Your task to perform on an android device: check battery use Image 0: 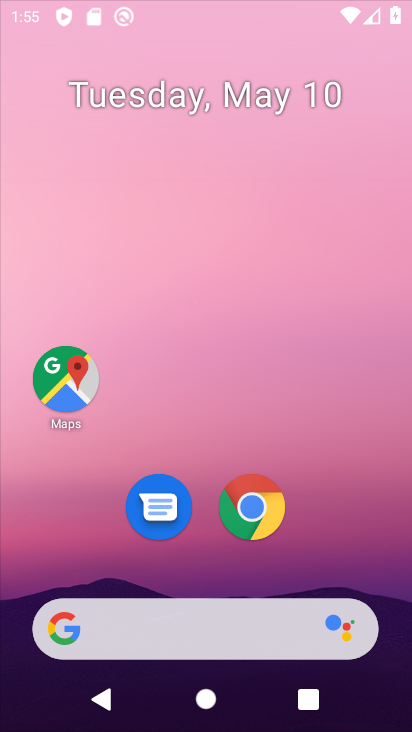
Step 0: drag from (304, 470) to (71, 15)
Your task to perform on an android device: check battery use Image 1: 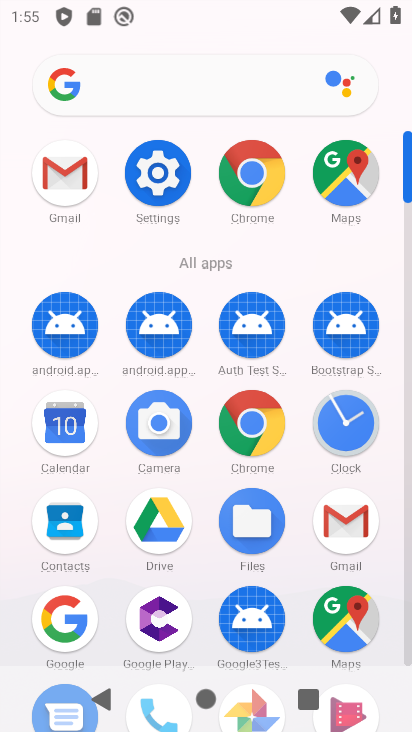
Step 1: click (157, 161)
Your task to perform on an android device: check battery use Image 2: 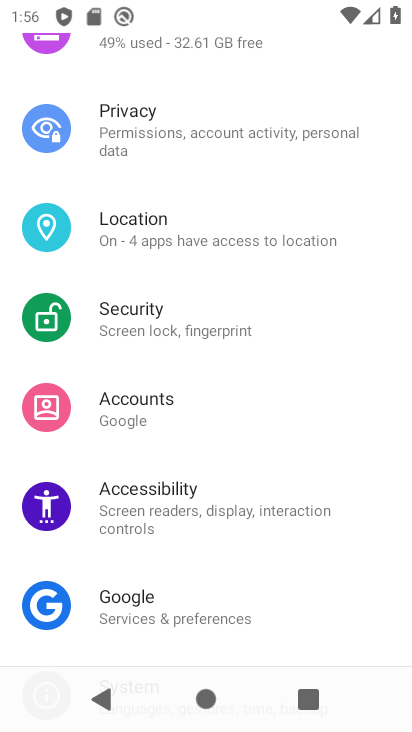
Step 2: drag from (134, 458) to (86, 61)
Your task to perform on an android device: check battery use Image 3: 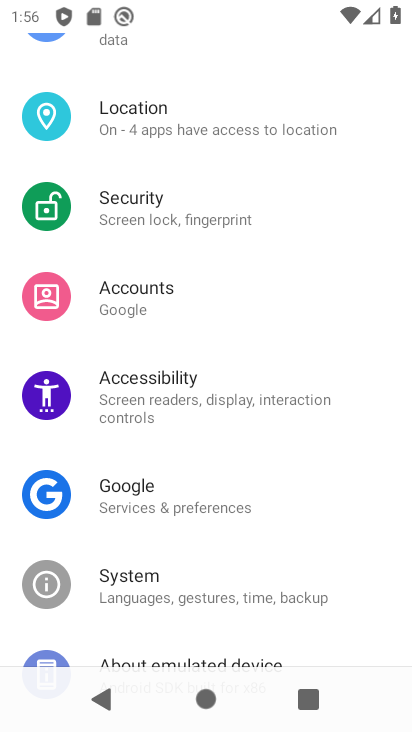
Step 3: drag from (167, 335) to (97, 22)
Your task to perform on an android device: check battery use Image 4: 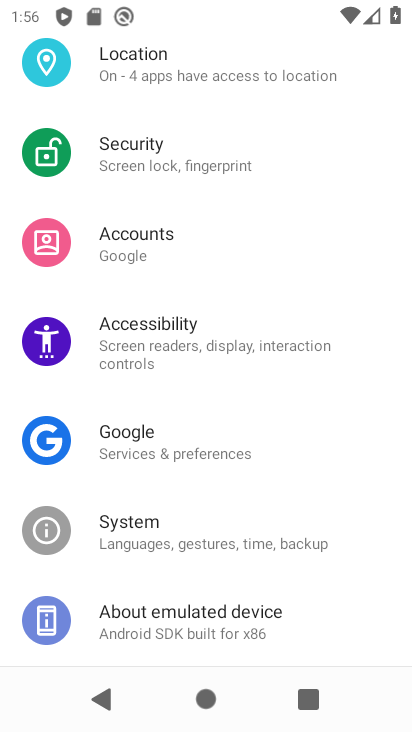
Step 4: drag from (147, 494) to (126, 242)
Your task to perform on an android device: check battery use Image 5: 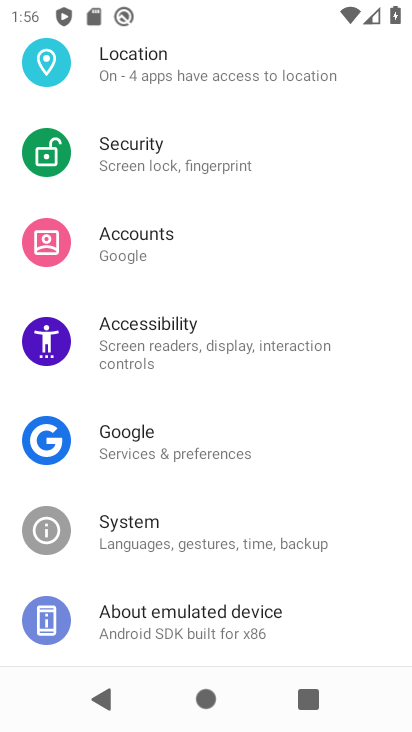
Step 5: drag from (145, 218) to (235, 571)
Your task to perform on an android device: check battery use Image 6: 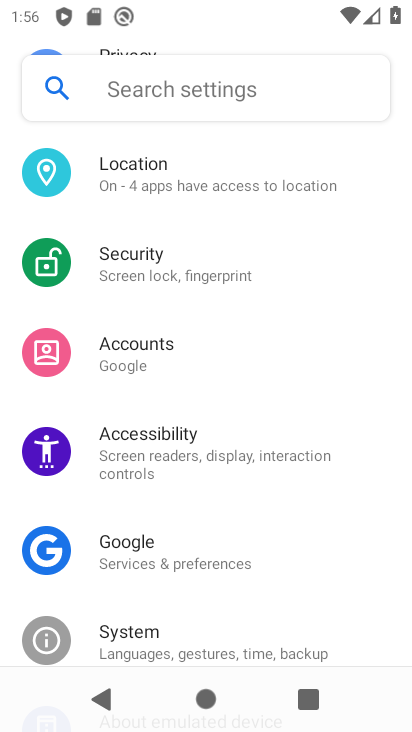
Step 6: drag from (139, 590) to (163, 700)
Your task to perform on an android device: check battery use Image 7: 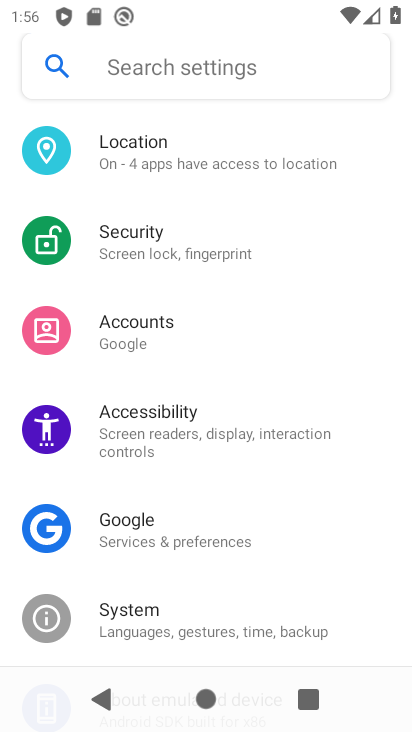
Step 7: drag from (175, 273) to (234, 489)
Your task to perform on an android device: check battery use Image 8: 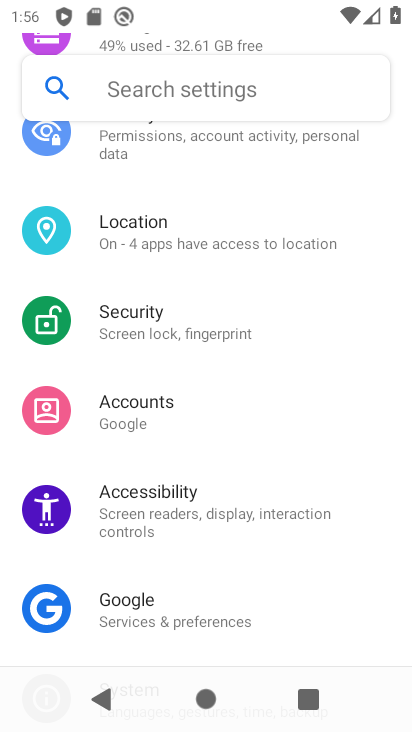
Step 8: drag from (205, 431) to (227, 516)
Your task to perform on an android device: check battery use Image 9: 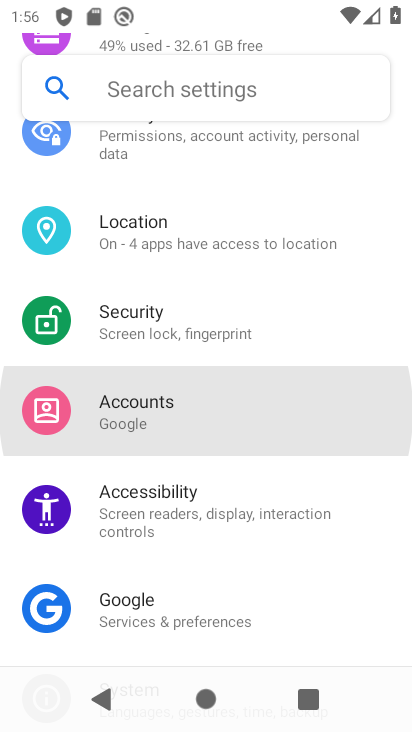
Step 9: drag from (170, 223) to (248, 431)
Your task to perform on an android device: check battery use Image 10: 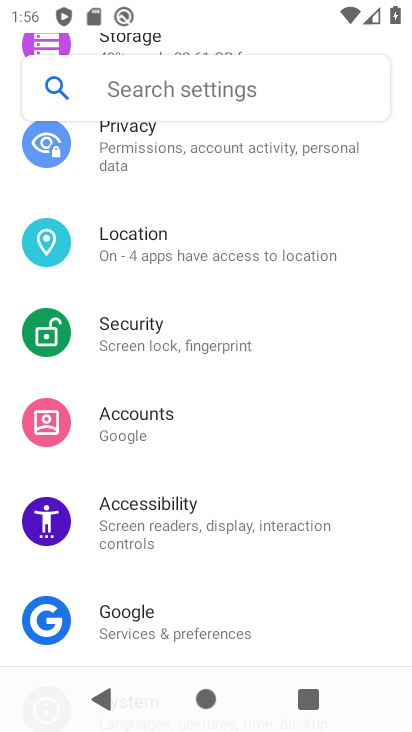
Step 10: drag from (199, 351) to (232, 544)
Your task to perform on an android device: check battery use Image 11: 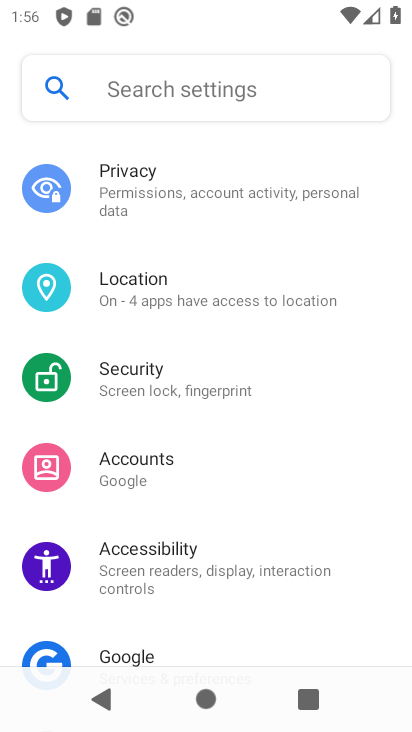
Step 11: drag from (173, 258) to (235, 489)
Your task to perform on an android device: check battery use Image 12: 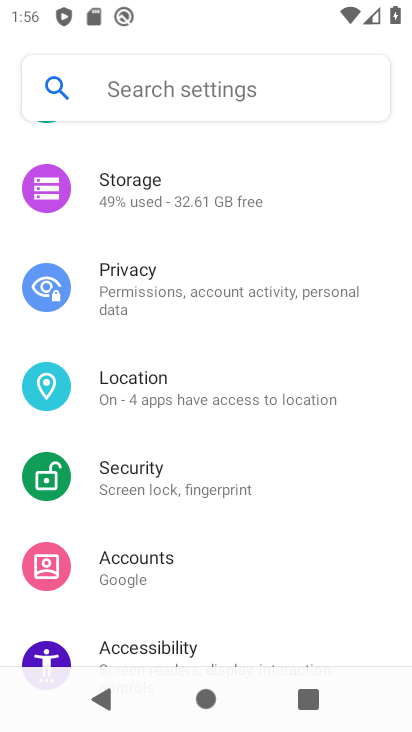
Step 12: drag from (180, 389) to (170, 524)
Your task to perform on an android device: check battery use Image 13: 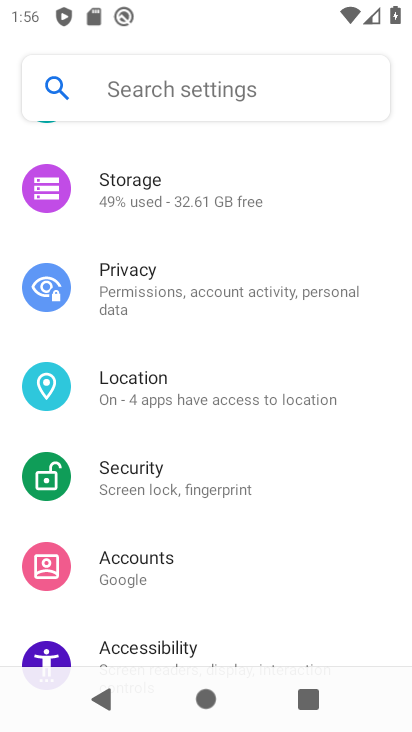
Step 13: drag from (165, 299) to (196, 462)
Your task to perform on an android device: check battery use Image 14: 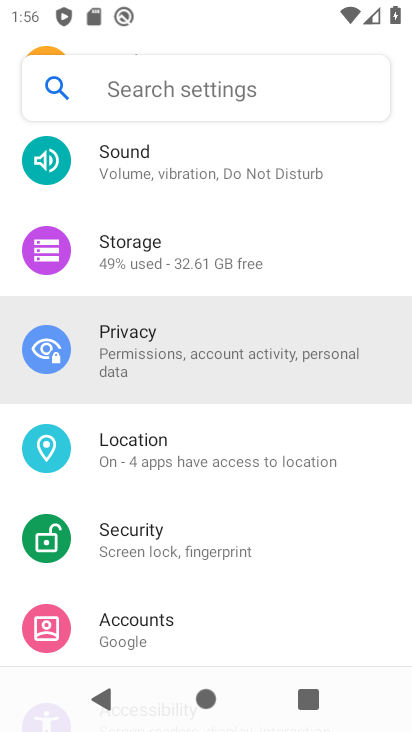
Step 14: drag from (174, 347) to (221, 534)
Your task to perform on an android device: check battery use Image 15: 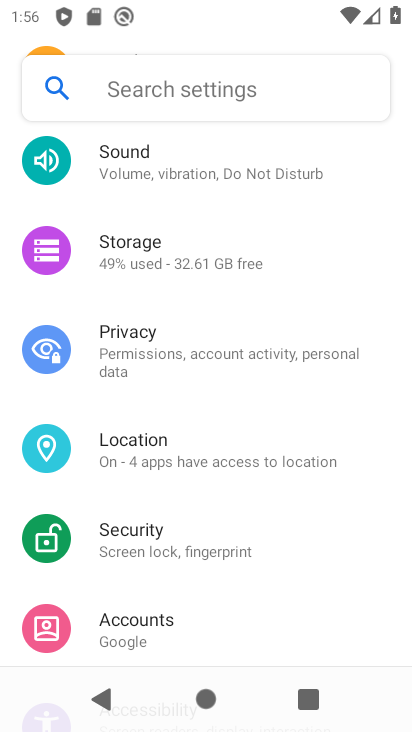
Step 15: drag from (207, 351) to (328, 556)
Your task to perform on an android device: check battery use Image 16: 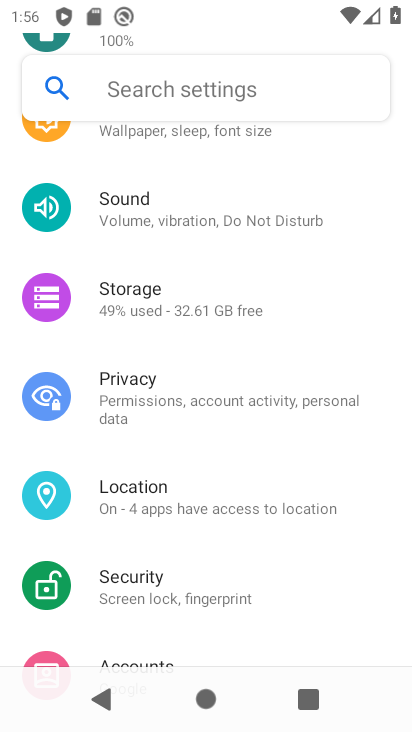
Step 16: drag from (100, 247) to (167, 433)
Your task to perform on an android device: check battery use Image 17: 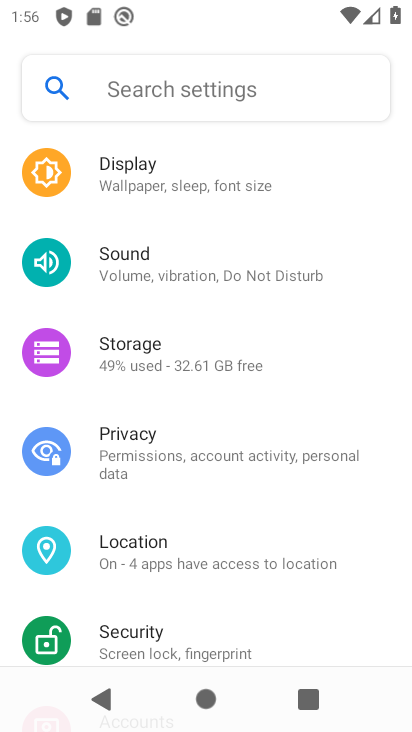
Step 17: drag from (144, 181) to (185, 508)
Your task to perform on an android device: check battery use Image 18: 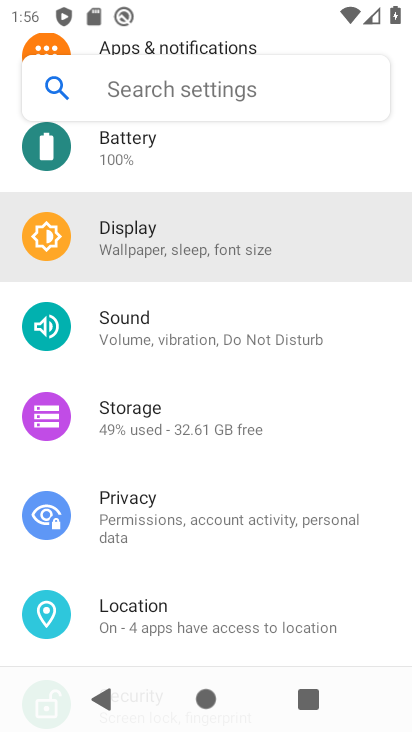
Step 18: drag from (121, 239) to (161, 507)
Your task to perform on an android device: check battery use Image 19: 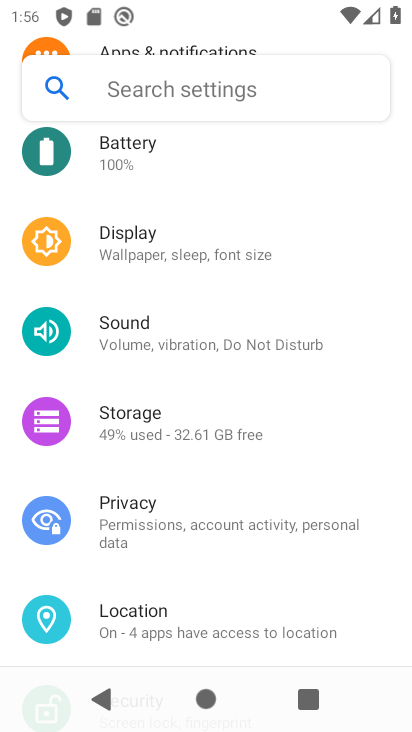
Step 19: click (140, 475)
Your task to perform on an android device: check battery use Image 20: 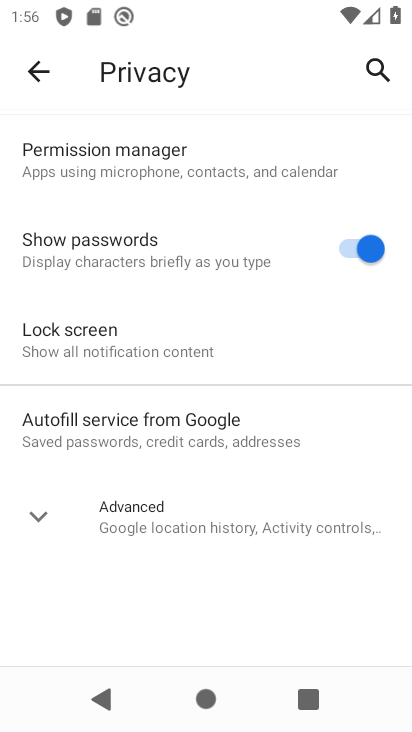
Step 20: click (29, 62)
Your task to perform on an android device: check battery use Image 21: 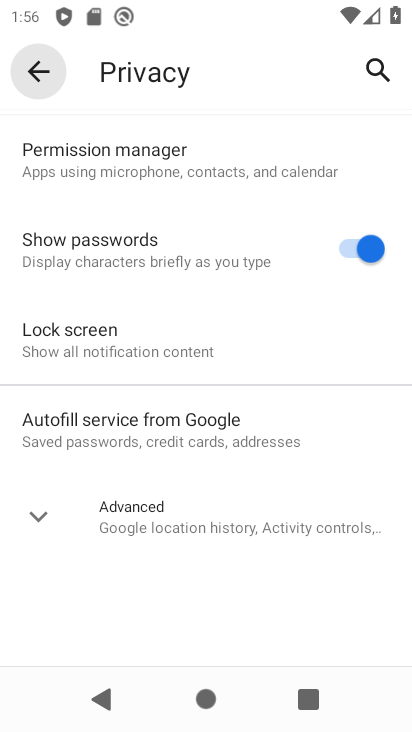
Step 21: click (31, 61)
Your task to perform on an android device: check battery use Image 22: 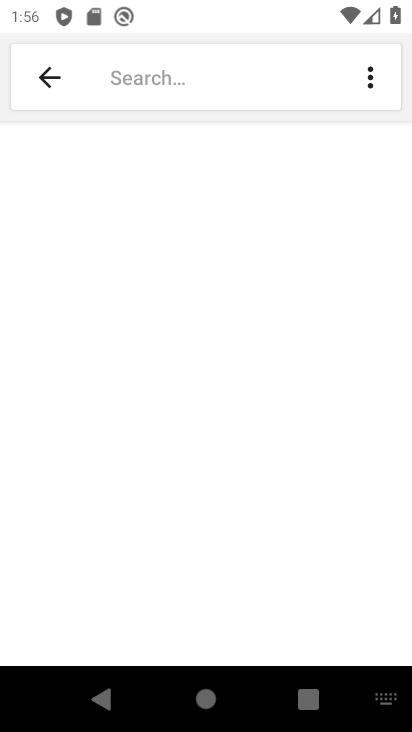
Step 22: click (39, 75)
Your task to perform on an android device: check battery use Image 23: 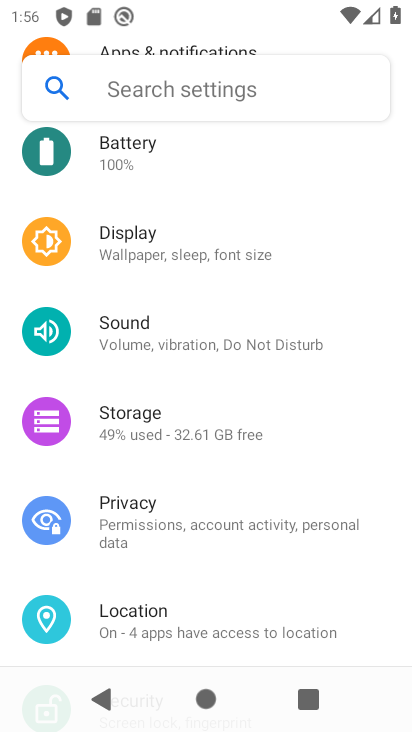
Step 23: click (121, 159)
Your task to perform on an android device: check battery use Image 24: 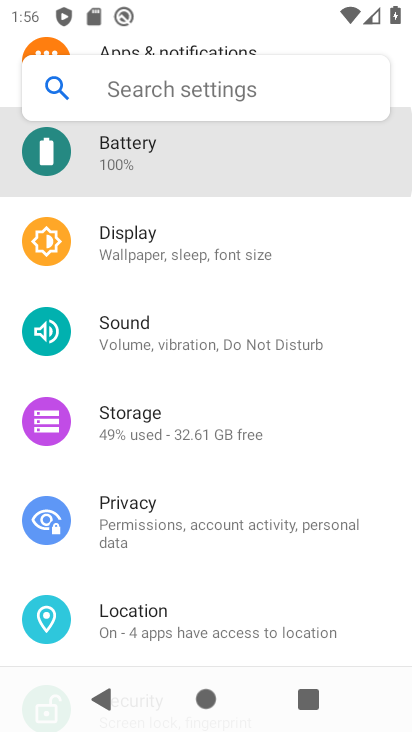
Step 24: click (111, 156)
Your task to perform on an android device: check battery use Image 25: 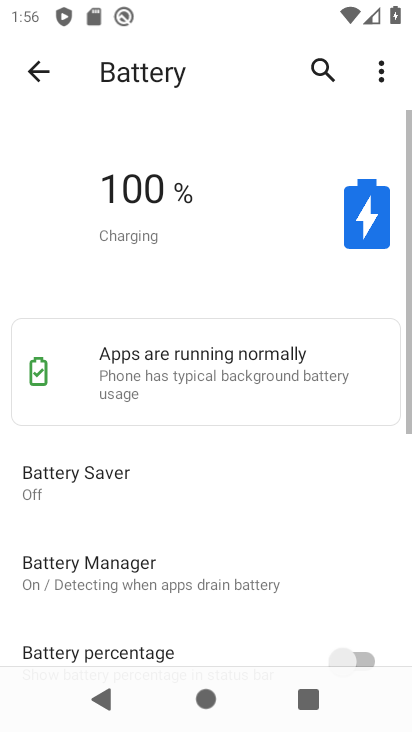
Step 25: task complete